Your task to perform on an android device: turn smart compose on in the gmail app Image 0: 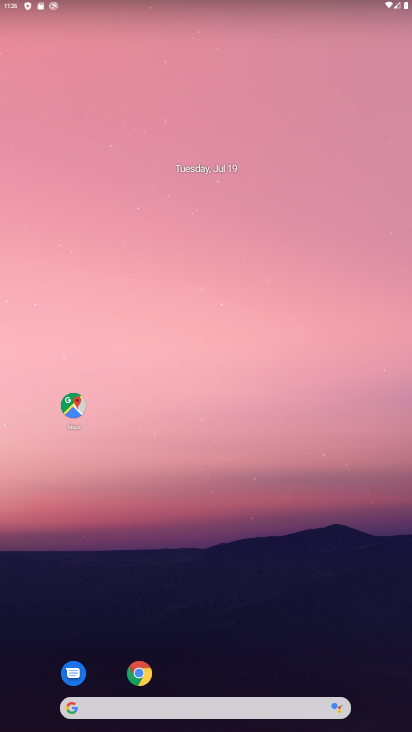
Step 0: drag from (0, 725) to (294, 195)
Your task to perform on an android device: turn smart compose on in the gmail app Image 1: 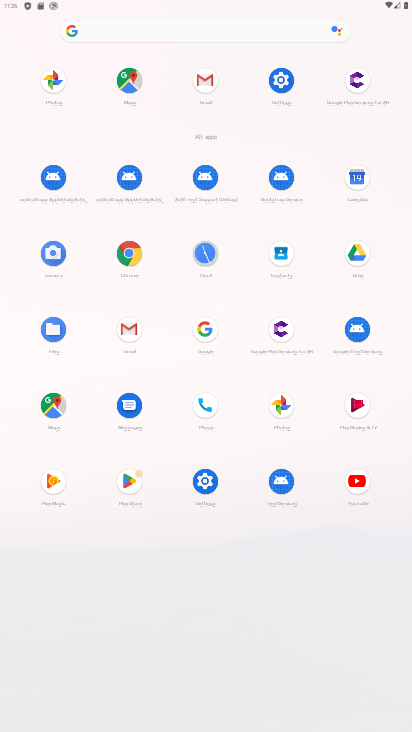
Step 1: click (213, 78)
Your task to perform on an android device: turn smart compose on in the gmail app Image 2: 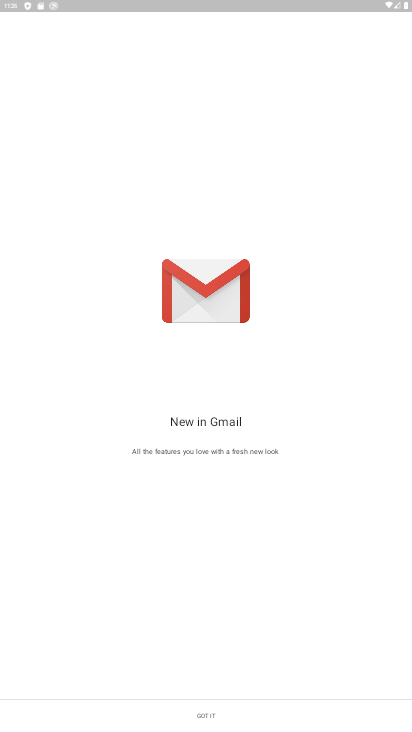
Step 2: click (214, 714)
Your task to perform on an android device: turn smart compose on in the gmail app Image 3: 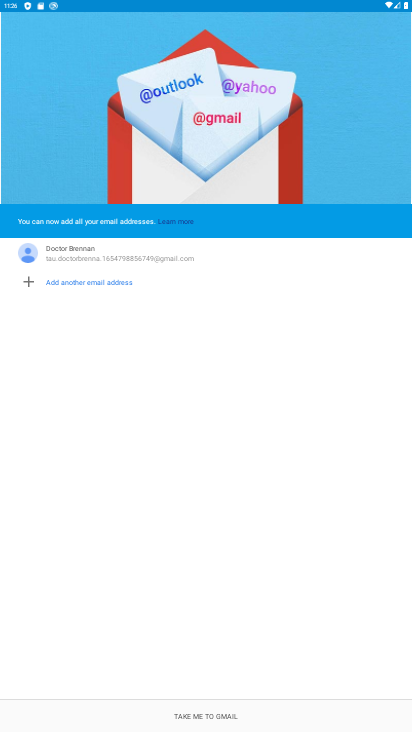
Step 3: click (250, 728)
Your task to perform on an android device: turn smart compose on in the gmail app Image 4: 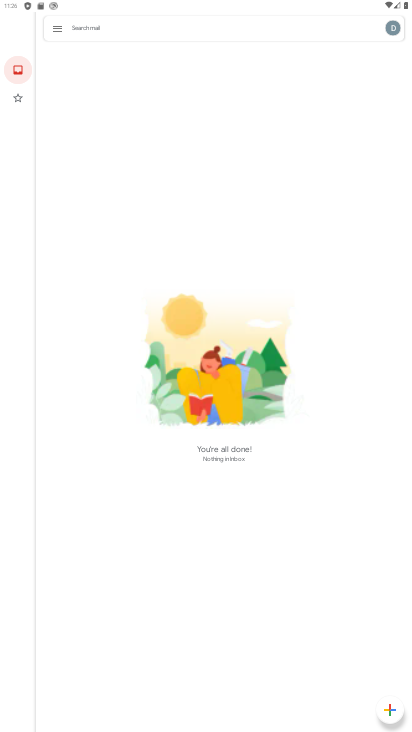
Step 4: click (57, 27)
Your task to perform on an android device: turn smart compose on in the gmail app Image 5: 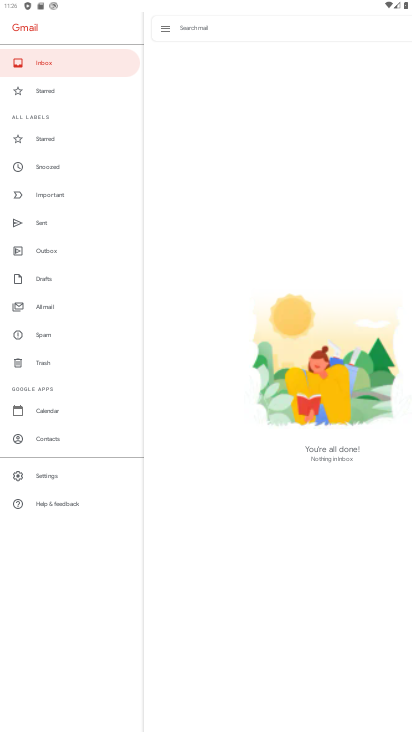
Step 5: click (19, 478)
Your task to perform on an android device: turn smart compose on in the gmail app Image 6: 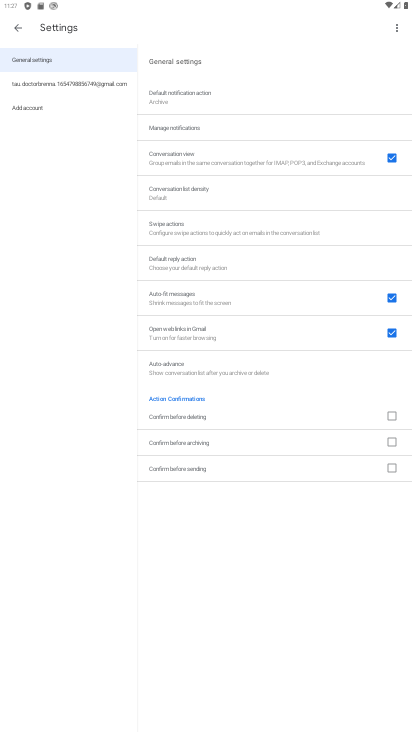
Step 6: task complete